Your task to perform on an android device: change the clock display to show seconds Image 0: 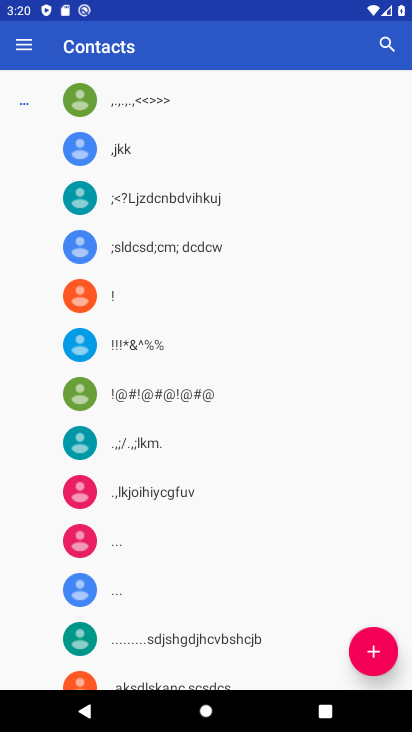
Step 0: press home button
Your task to perform on an android device: change the clock display to show seconds Image 1: 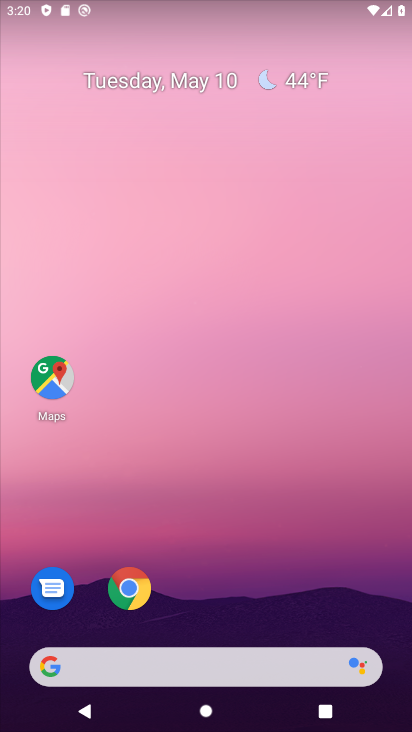
Step 1: drag from (252, 568) to (210, 61)
Your task to perform on an android device: change the clock display to show seconds Image 2: 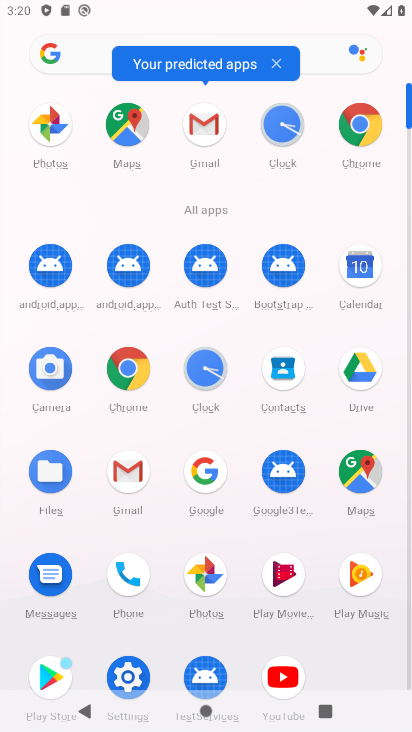
Step 2: click (184, 377)
Your task to perform on an android device: change the clock display to show seconds Image 3: 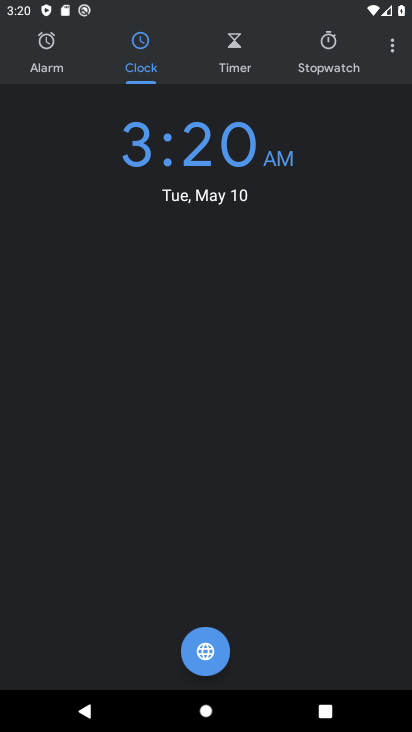
Step 3: click (394, 56)
Your task to perform on an android device: change the clock display to show seconds Image 4: 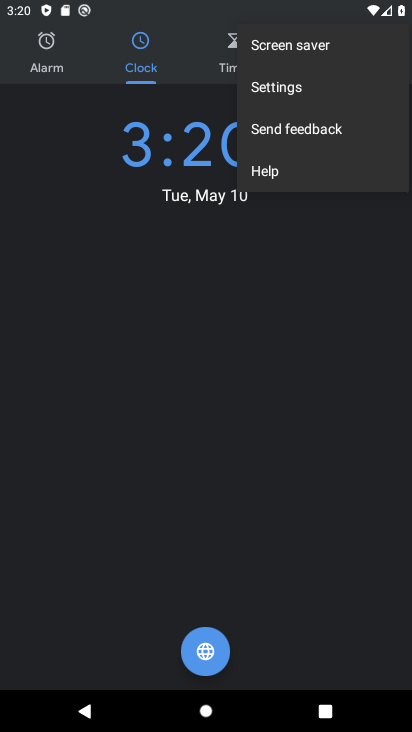
Step 4: click (265, 89)
Your task to perform on an android device: change the clock display to show seconds Image 5: 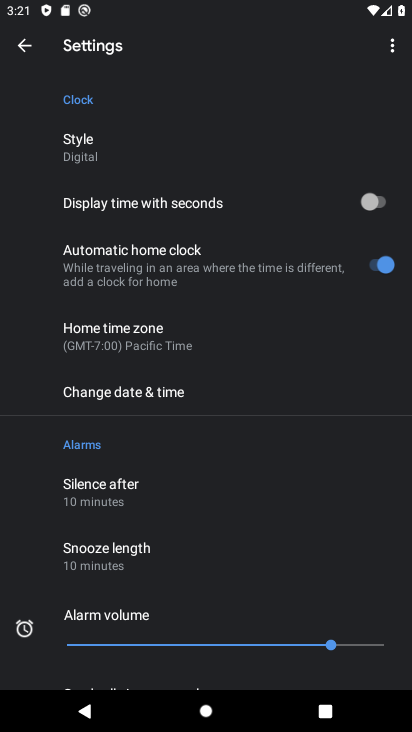
Step 5: click (207, 206)
Your task to perform on an android device: change the clock display to show seconds Image 6: 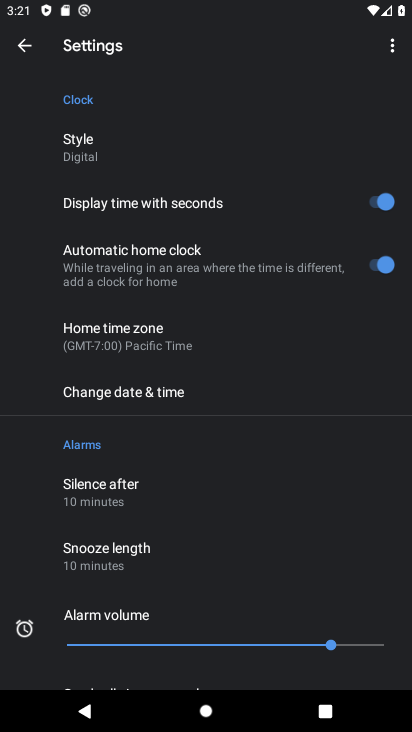
Step 6: task complete